Your task to perform on an android device: Check the news Image 0: 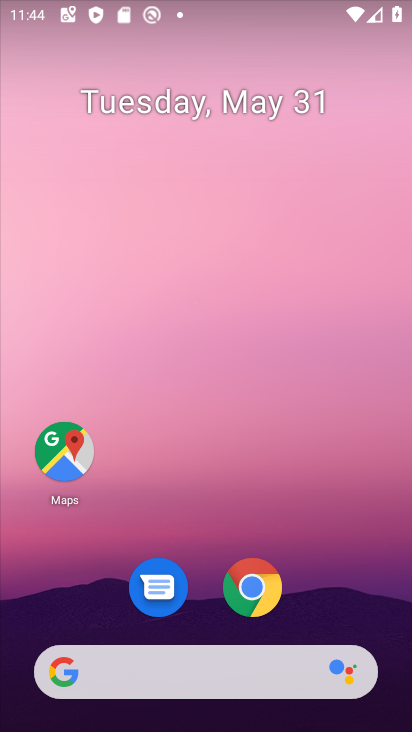
Step 0: drag from (30, 333) to (255, 362)
Your task to perform on an android device: Check the news Image 1: 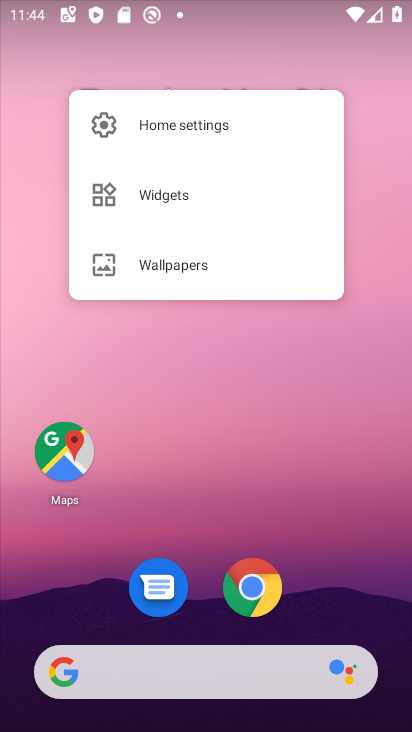
Step 1: task complete